Your task to perform on an android device: Play the last video I watched on Youtube Image 0: 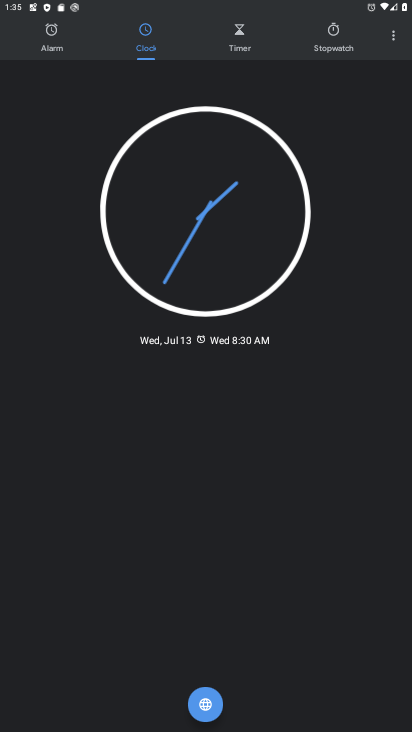
Step 0: press home button
Your task to perform on an android device: Play the last video I watched on Youtube Image 1: 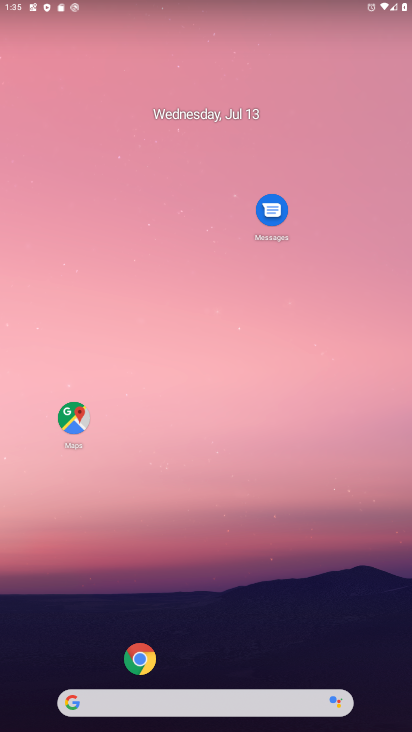
Step 1: drag from (35, 671) to (209, 17)
Your task to perform on an android device: Play the last video I watched on Youtube Image 2: 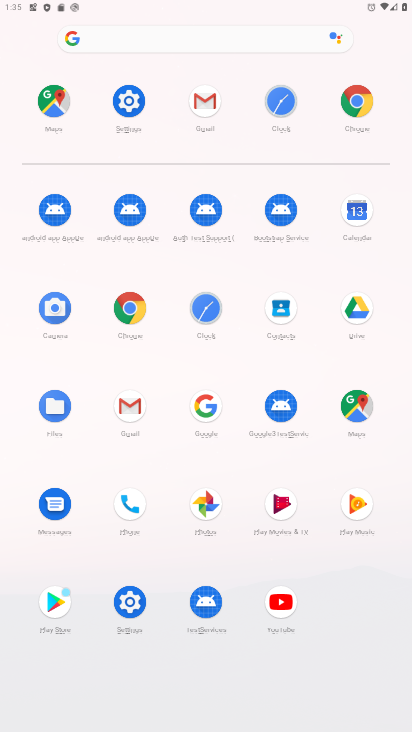
Step 2: click (280, 601)
Your task to perform on an android device: Play the last video I watched on Youtube Image 3: 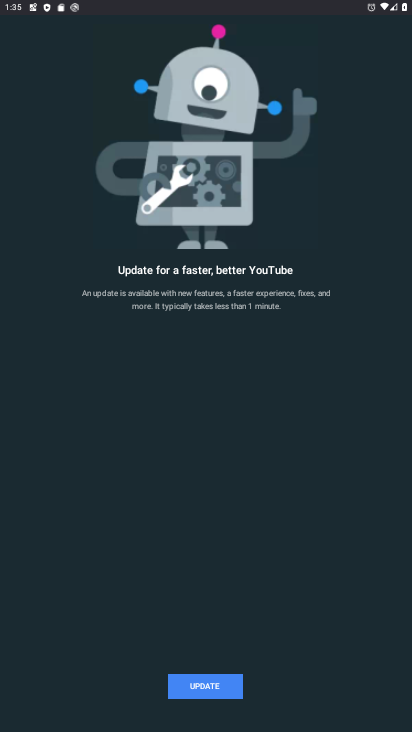
Step 3: task complete